Your task to perform on an android device: turn off improve location accuracy Image 0: 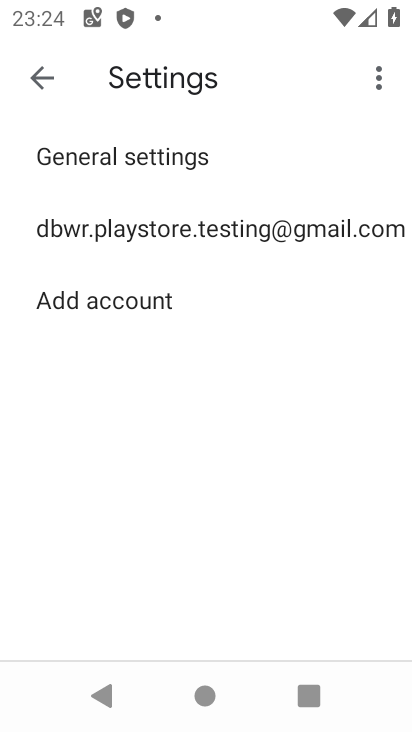
Step 0: press home button
Your task to perform on an android device: turn off improve location accuracy Image 1: 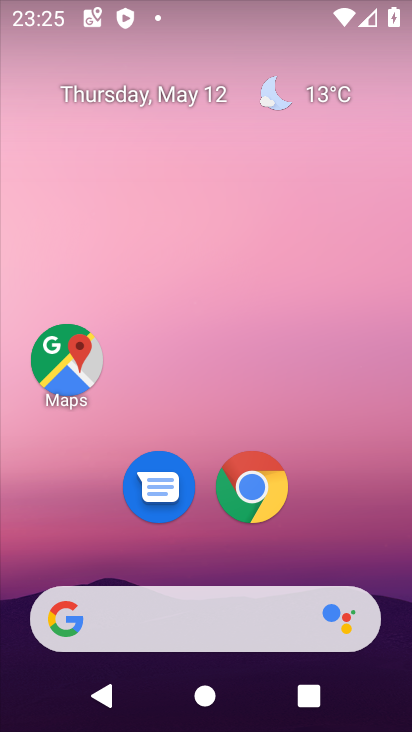
Step 1: drag from (225, 548) to (257, 172)
Your task to perform on an android device: turn off improve location accuracy Image 2: 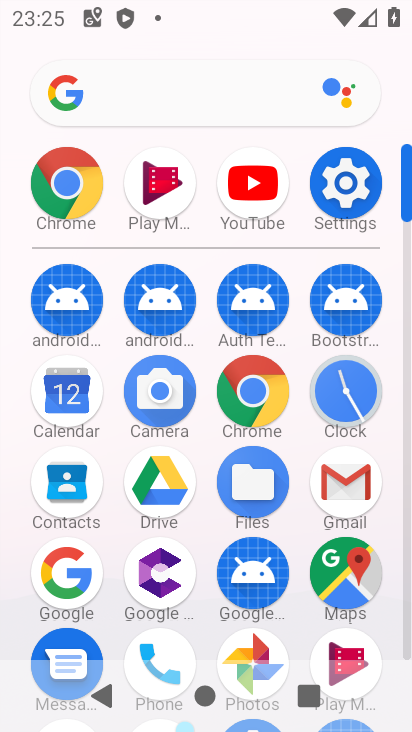
Step 2: click (365, 193)
Your task to perform on an android device: turn off improve location accuracy Image 3: 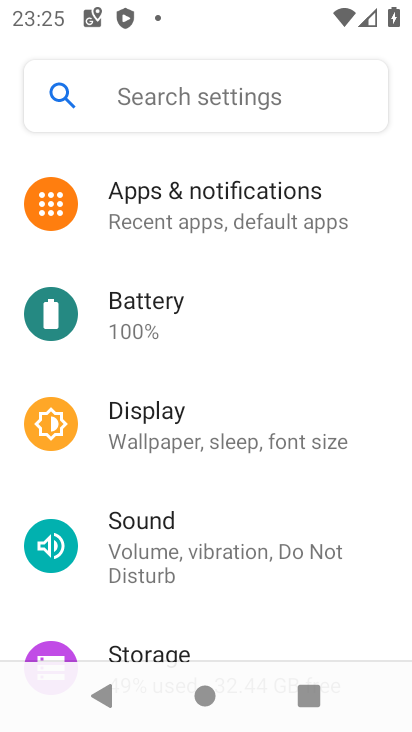
Step 3: drag from (188, 584) to (265, 160)
Your task to perform on an android device: turn off improve location accuracy Image 4: 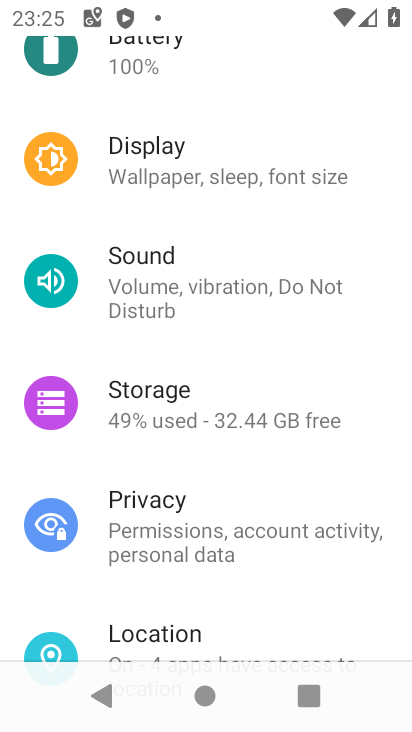
Step 4: click (183, 631)
Your task to perform on an android device: turn off improve location accuracy Image 5: 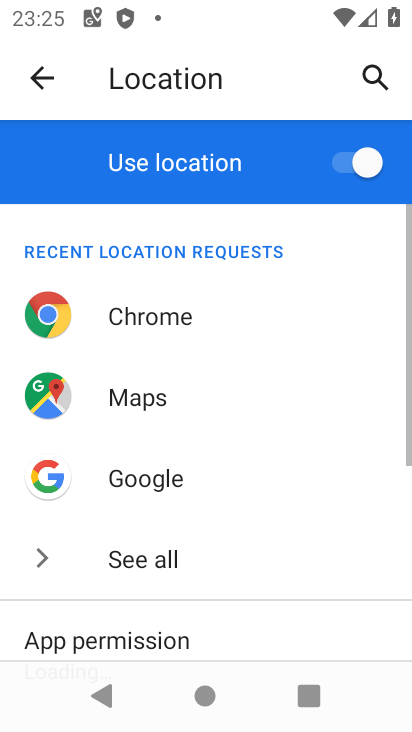
Step 5: drag from (183, 631) to (220, 199)
Your task to perform on an android device: turn off improve location accuracy Image 6: 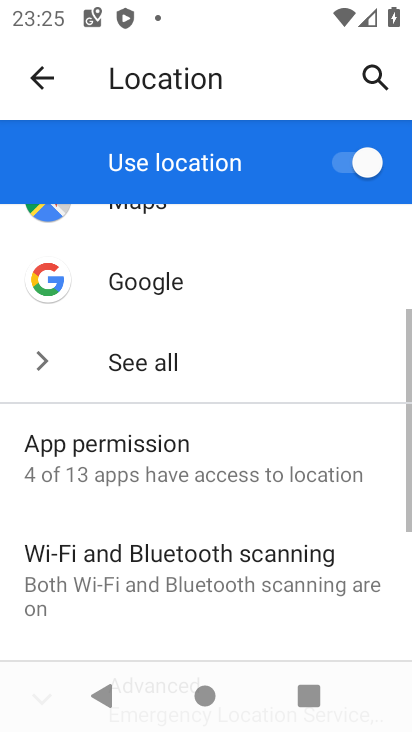
Step 6: click (185, 548)
Your task to perform on an android device: turn off improve location accuracy Image 7: 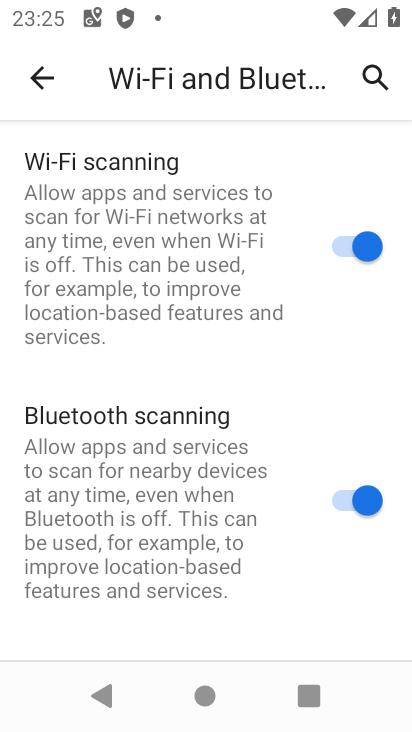
Step 7: drag from (185, 548) to (279, 73)
Your task to perform on an android device: turn off improve location accuracy Image 8: 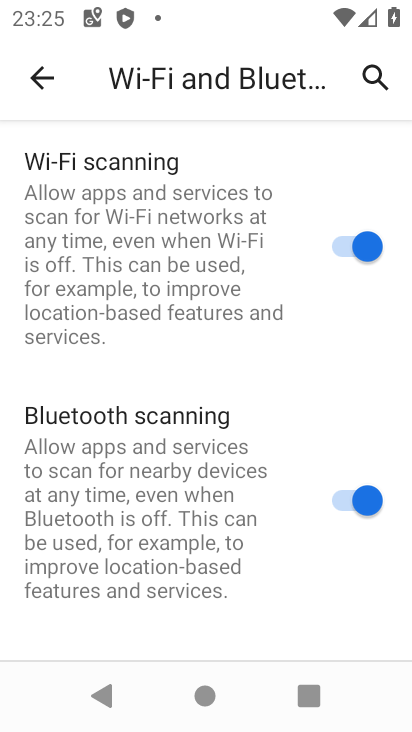
Step 8: click (42, 82)
Your task to perform on an android device: turn off improve location accuracy Image 9: 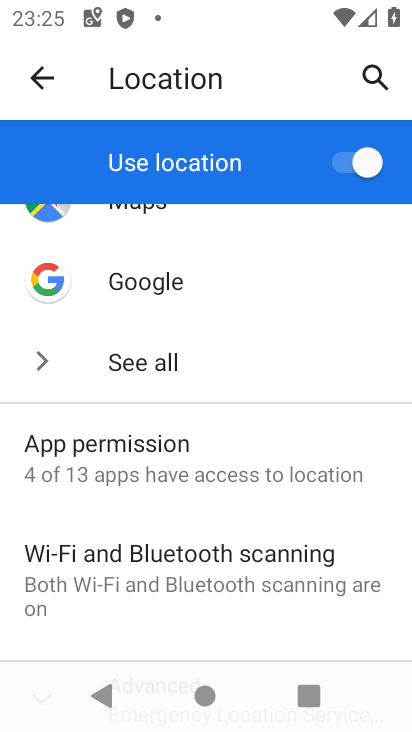
Step 9: drag from (219, 566) to (232, 271)
Your task to perform on an android device: turn off improve location accuracy Image 10: 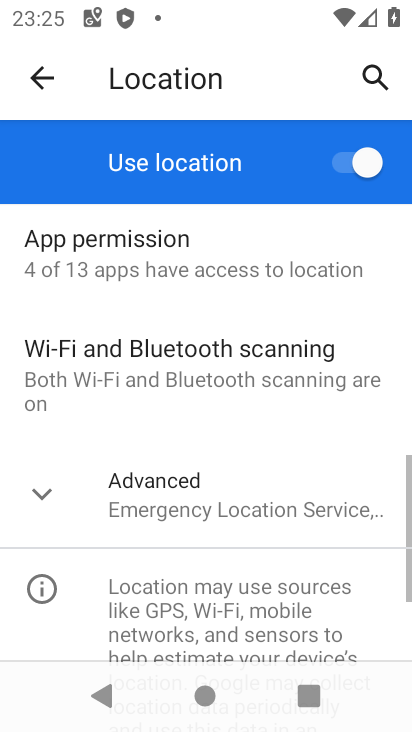
Step 10: click (232, 271)
Your task to perform on an android device: turn off improve location accuracy Image 11: 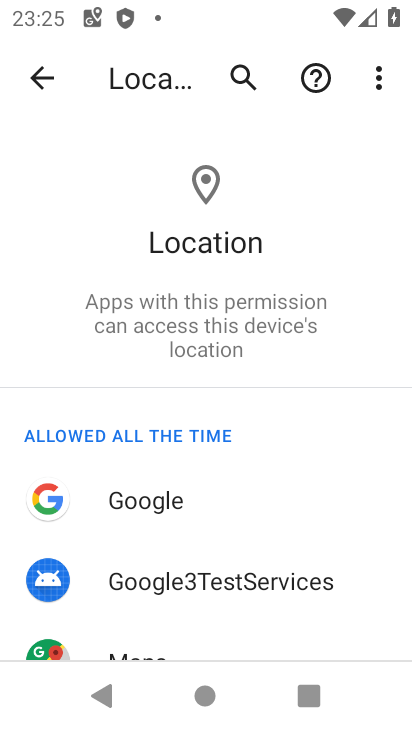
Step 11: drag from (166, 522) to (170, 275)
Your task to perform on an android device: turn off improve location accuracy Image 12: 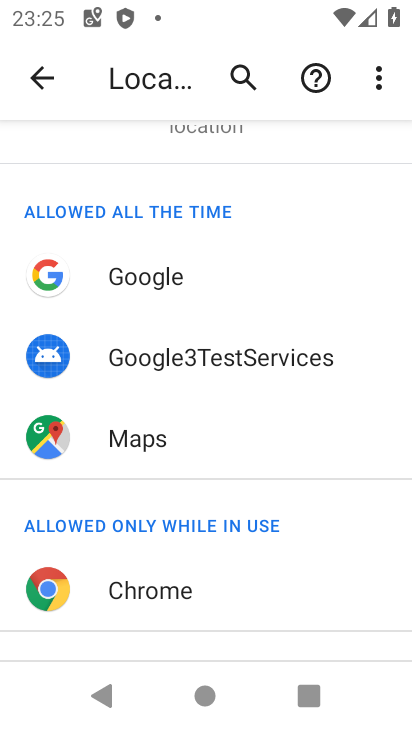
Step 12: drag from (182, 627) to (193, 353)
Your task to perform on an android device: turn off improve location accuracy Image 13: 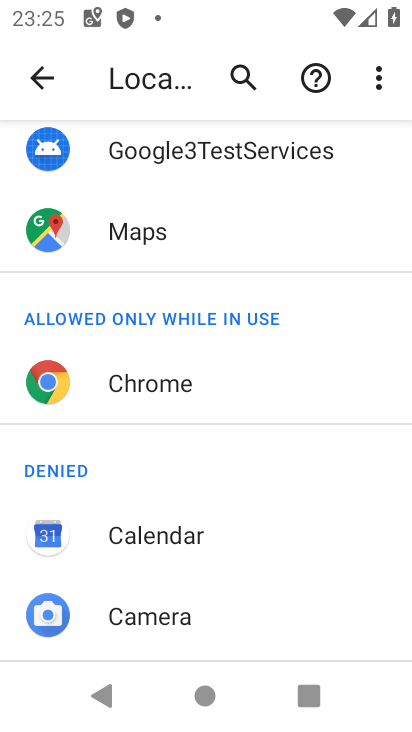
Step 13: drag from (139, 599) to (214, 190)
Your task to perform on an android device: turn off improve location accuracy Image 14: 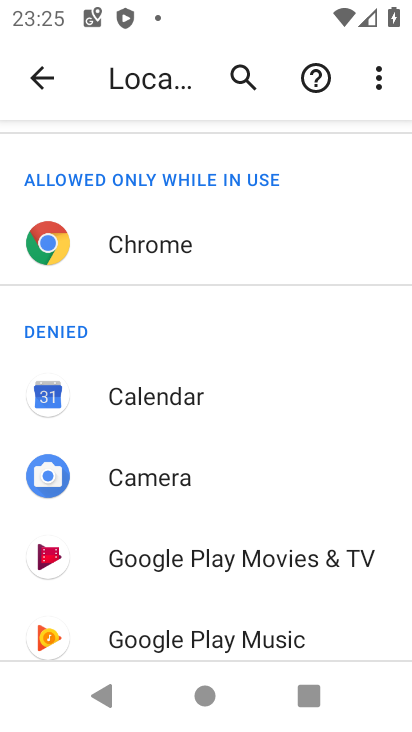
Step 14: drag from (205, 537) to (250, 105)
Your task to perform on an android device: turn off improve location accuracy Image 15: 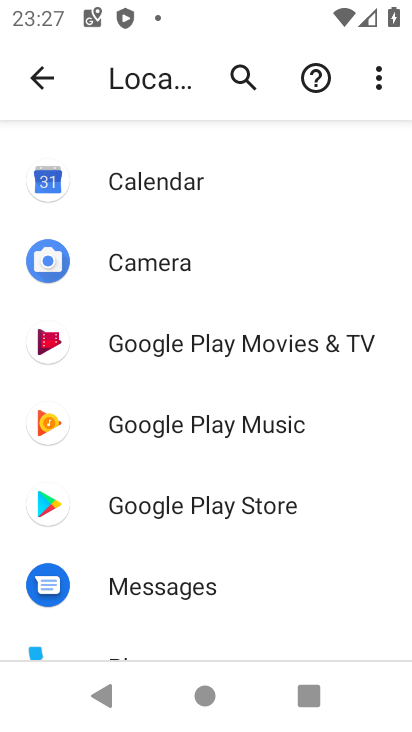
Step 15: press home button
Your task to perform on an android device: turn off improve location accuracy Image 16: 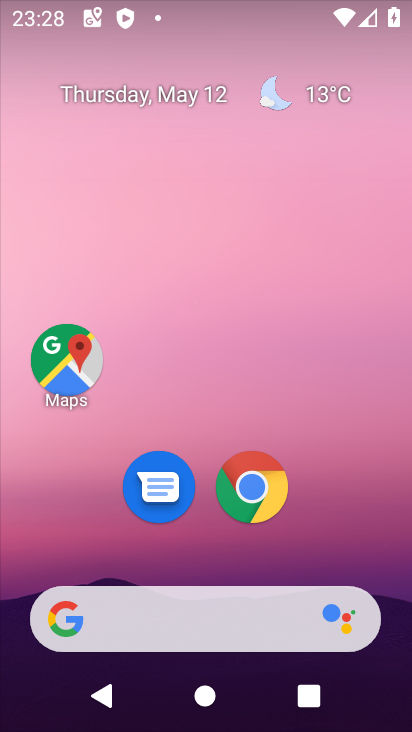
Step 16: drag from (208, 557) to (261, 113)
Your task to perform on an android device: turn off improve location accuracy Image 17: 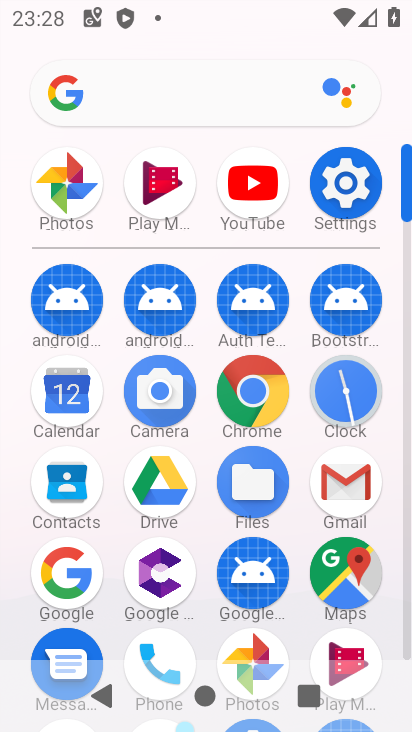
Step 17: click (360, 198)
Your task to perform on an android device: turn off improve location accuracy Image 18: 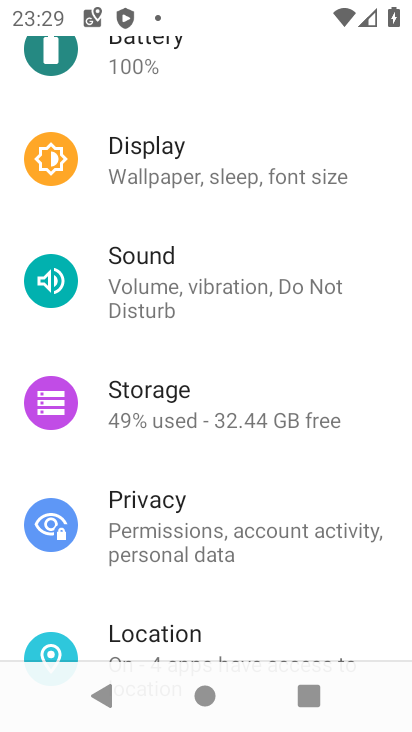
Step 18: click (157, 660)
Your task to perform on an android device: turn off improve location accuracy Image 19: 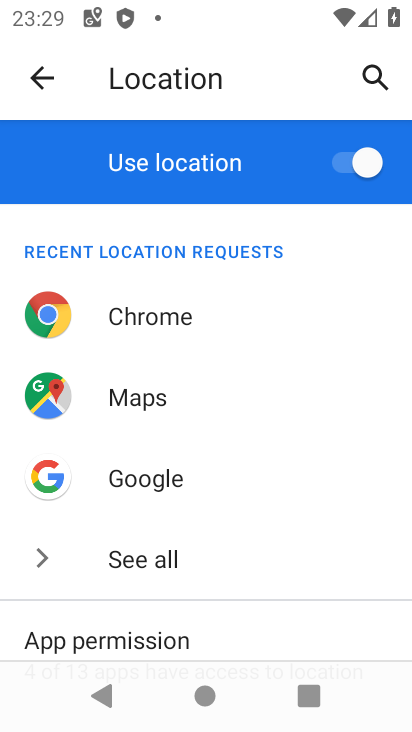
Step 19: drag from (165, 615) to (233, 191)
Your task to perform on an android device: turn off improve location accuracy Image 20: 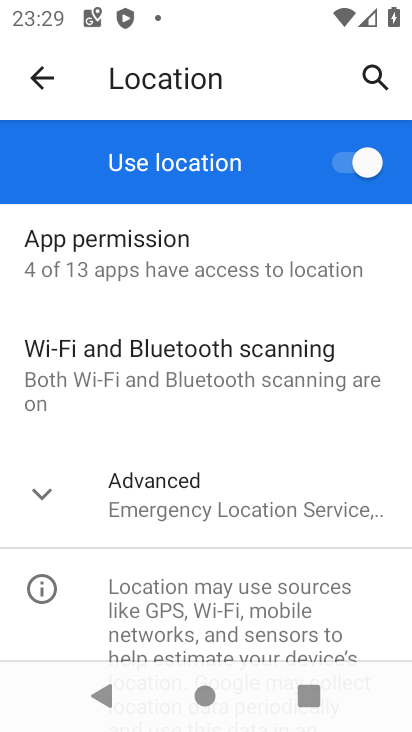
Step 20: click (231, 500)
Your task to perform on an android device: turn off improve location accuracy Image 21: 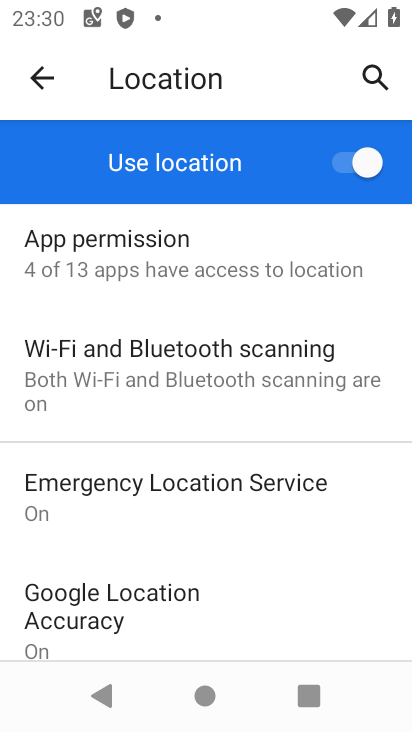
Step 21: drag from (127, 633) to (190, 308)
Your task to perform on an android device: turn off improve location accuracy Image 22: 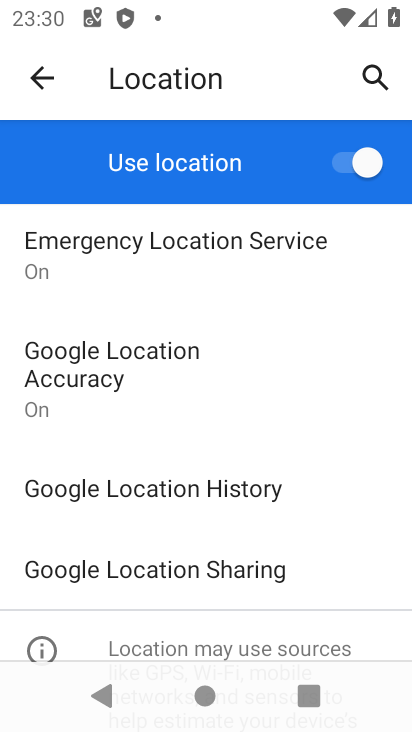
Step 22: click (131, 423)
Your task to perform on an android device: turn off improve location accuracy Image 23: 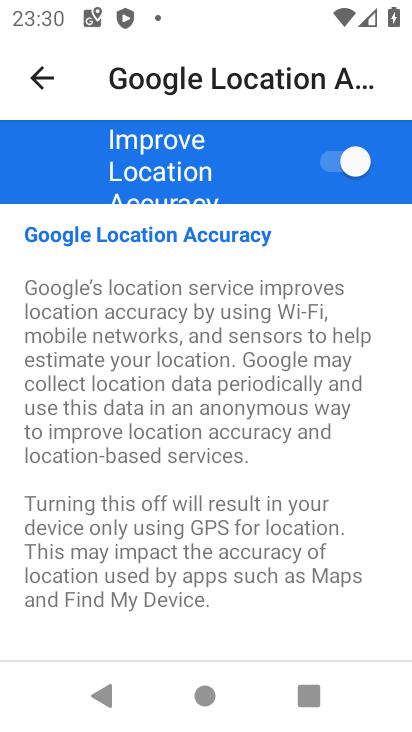
Step 23: click (318, 174)
Your task to perform on an android device: turn off improve location accuracy Image 24: 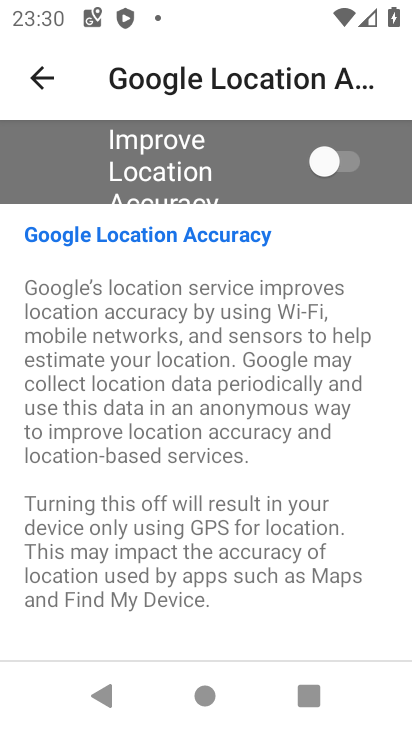
Step 24: task complete